Your task to perform on an android device: Open eBay Image 0: 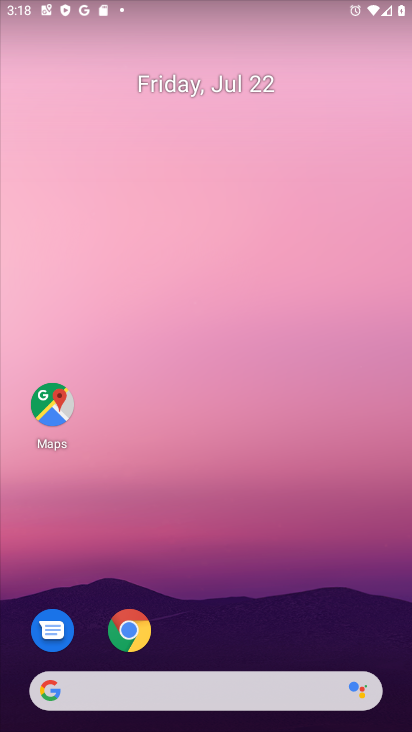
Step 0: click (137, 625)
Your task to perform on an android device: Open eBay Image 1: 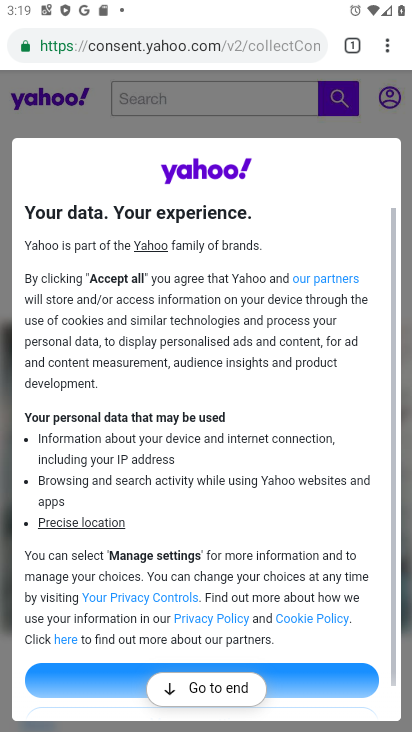
Step 1: click (235, 43)
Your task to perform on an android device: Open eBay Image 2: 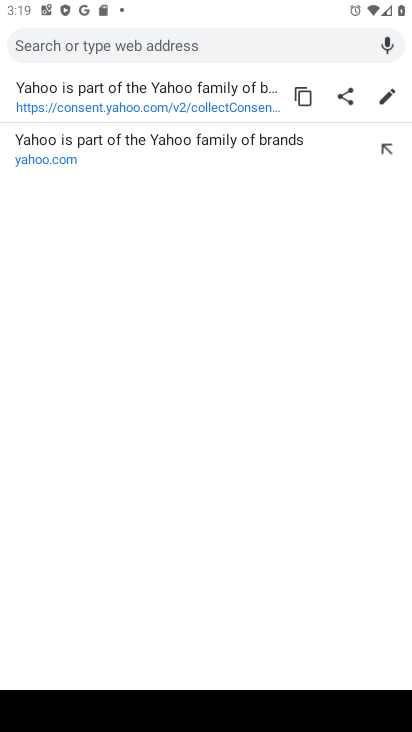
Step 2: type "ebay"
Your task to perform on an android device: Open eBay Image 3: 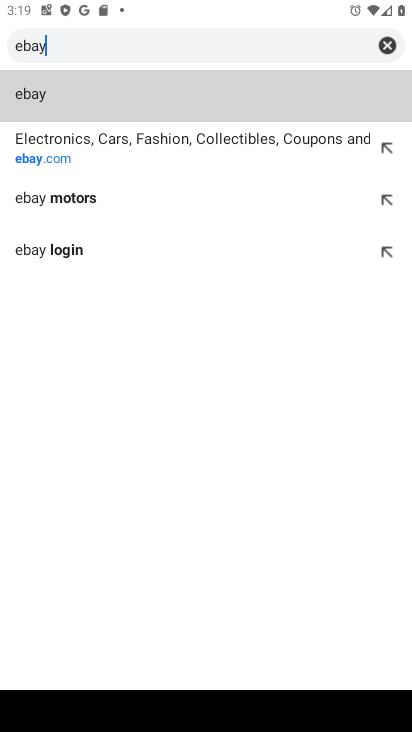
Step 3: click (108, 146)
Your task to perform on an android device: Open eBay Image 4: 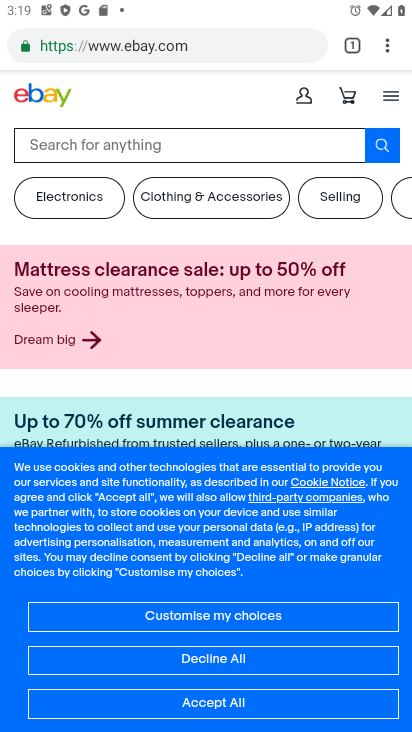
Step 4: task complete